Your task to perform on an android device: Go to settings Image 0: 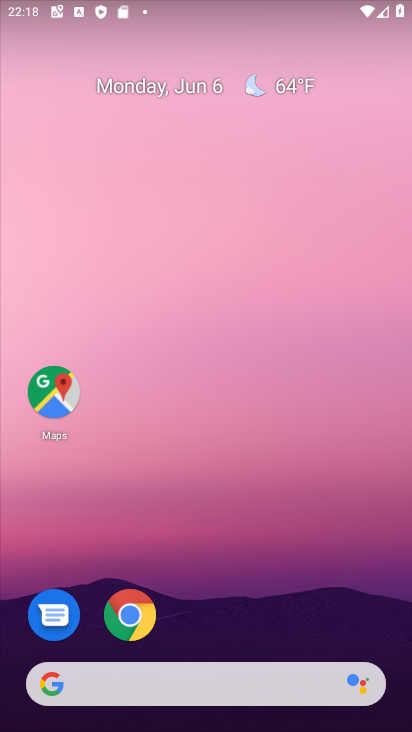
Step 0: drag from (366, 538) to (351, 110)
Your task to perform on an android device: Go to settings Image 1: 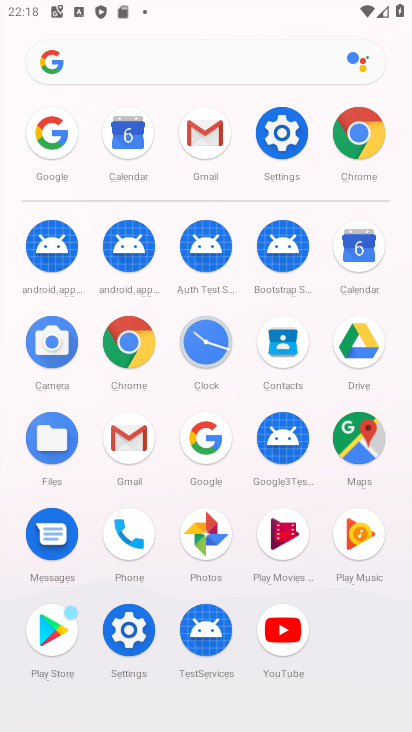
Step 1: click (288, 140)
Your task to perform on an android device: Go to settings Image 2: 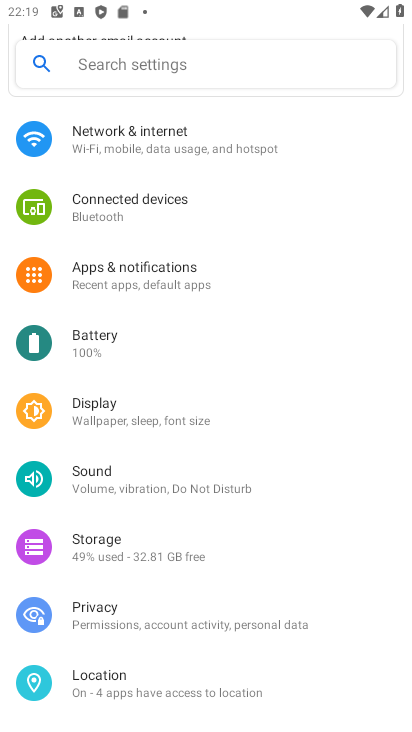
Step 2: task complete